Your task to perform on an android device: open app "The Home Depot" Image 0: 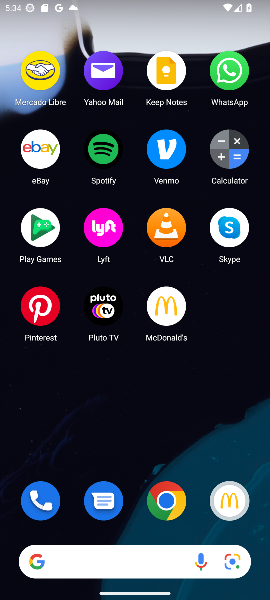
Step 0: drag from (122, 446) to (128, 46)
Your task to perform on an android device: open app "The Home Depot" Image 1: 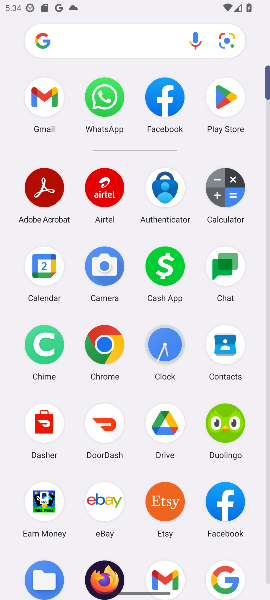
Step 1: click (223, 101)
Your task to perform on an android device: open app "The Home Depot" Image 2: 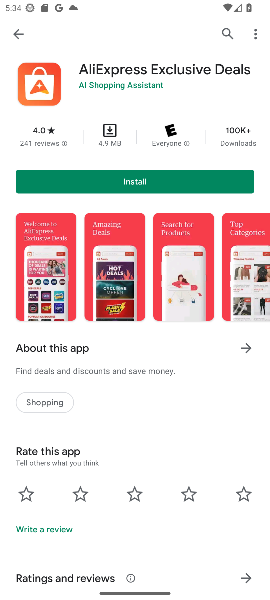
Step 2: click (223, 33)
Your task to perform on an android device: open app "The Home Depot" Image 3: 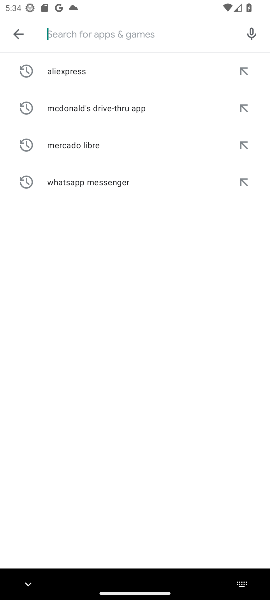
Step 3: type "The Home Depot"
Your task to perform on an android device: open app "The Home Depot" Image 4: 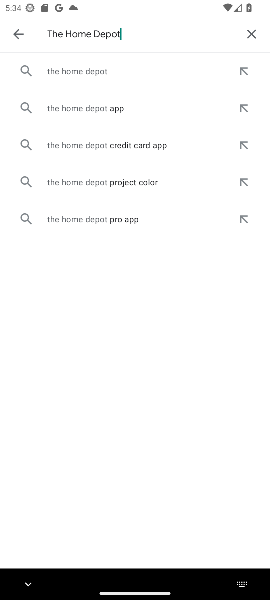
Step 4: click (81, 69)
Your task to perform on an android device: open app "The Home Depot" Image 5: 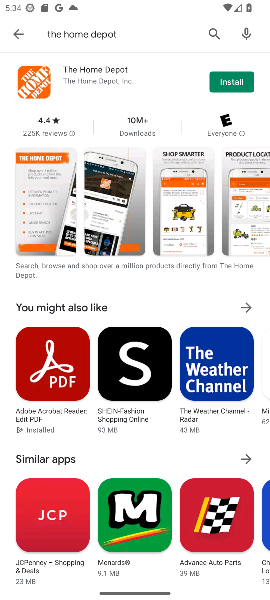
Step 5: task complete